Your task to perform on an android device: Open location settings Image 0: 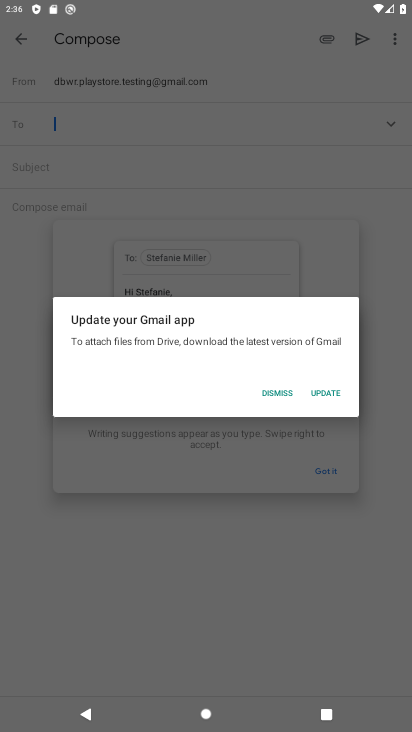
Step 0: press home button
Your task to perform on an android device: Open location settings Image 1: 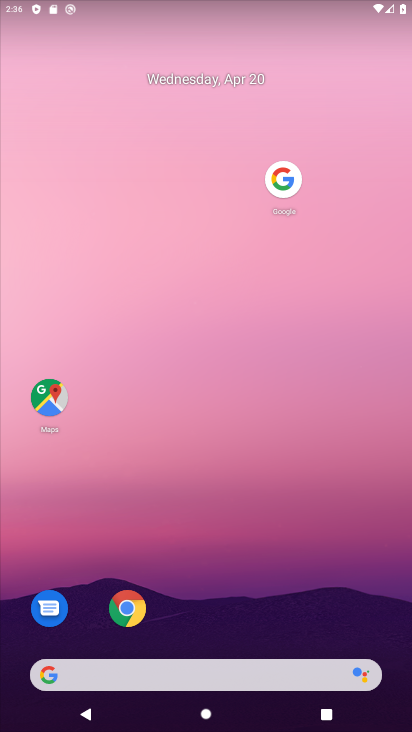
Step 1: drag from (290, 554) to (226, 42)
Your task to perform on an android device: Open location settings Image 2: 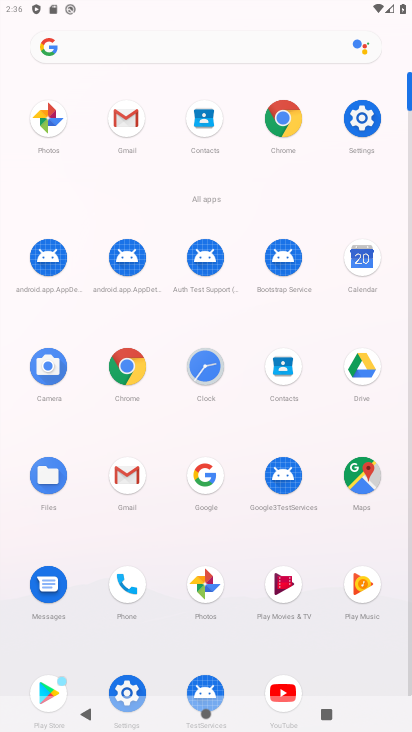
Step 2: click (356, 122)
Your task to perform on an android device: Open location settings Image 3: 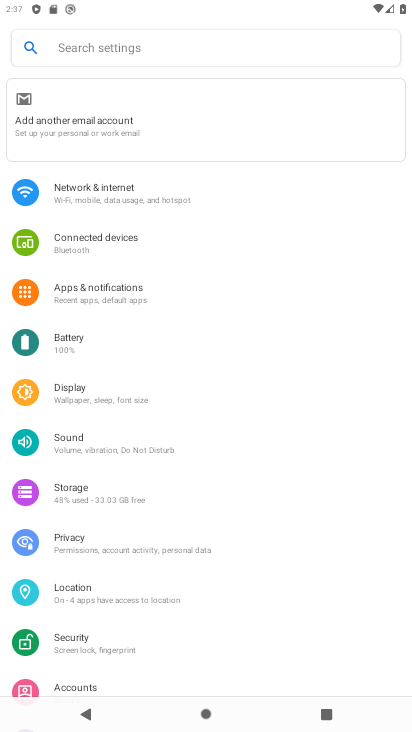
Step 3: click (96, 592)
Your task to perform on an android device: Open location settings Image 4: 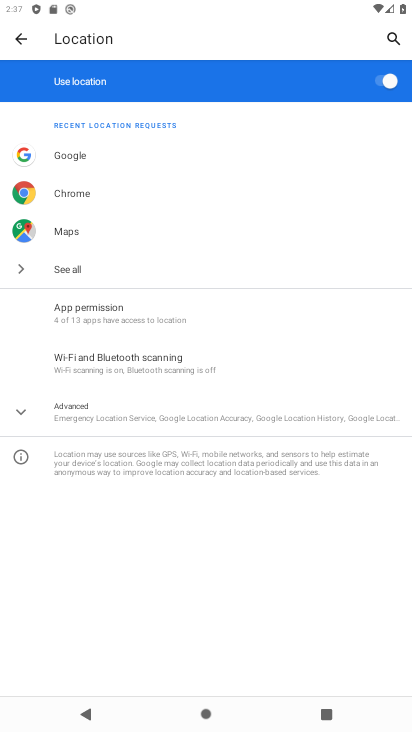
Step 4: task complete